Your task to perform on an android device: see creations saved in the google photos Image 0: 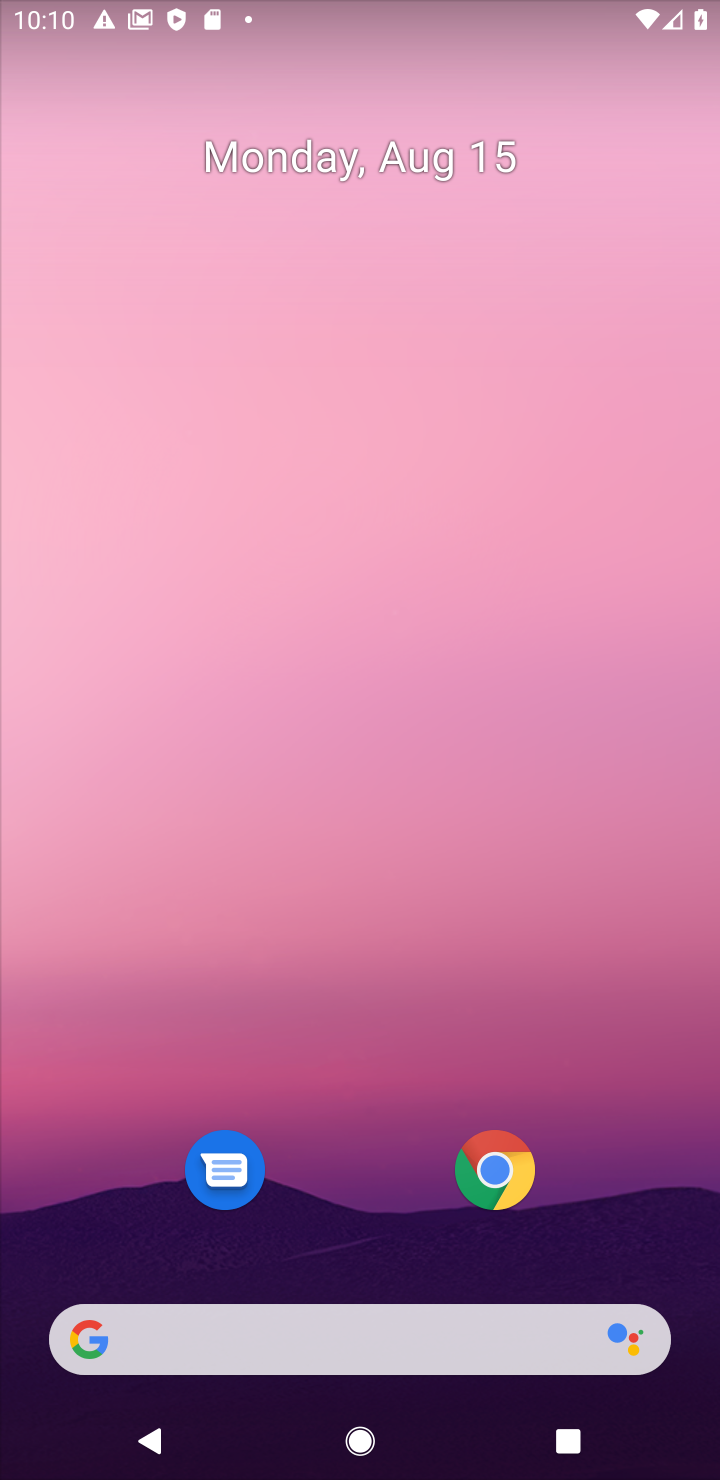
Step 0: press home button
Your task to perform on an android device: see creations saved in the google photos Image 1: 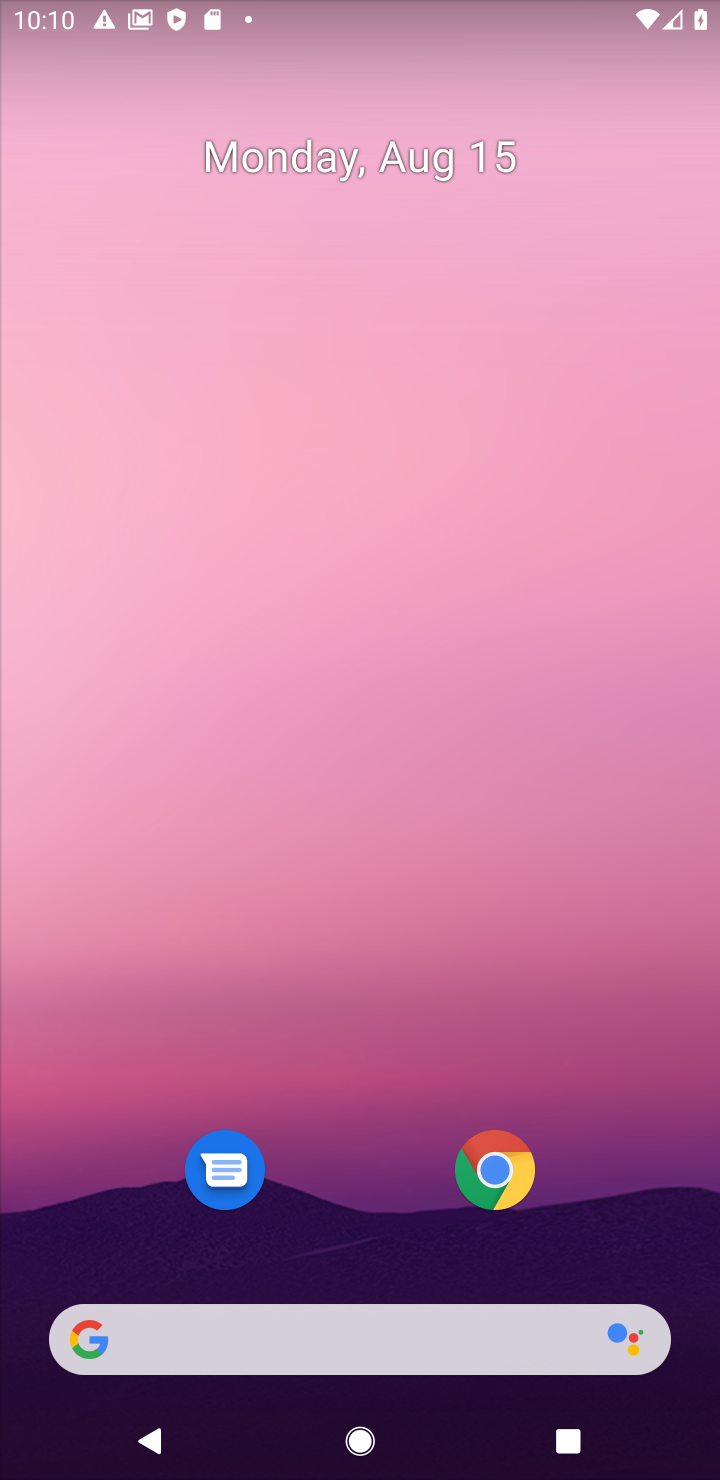
Step 1: drag from (397, 758) to (462, 13)
Your task to perform on an android device: see creations saved in the google photos Image 2: 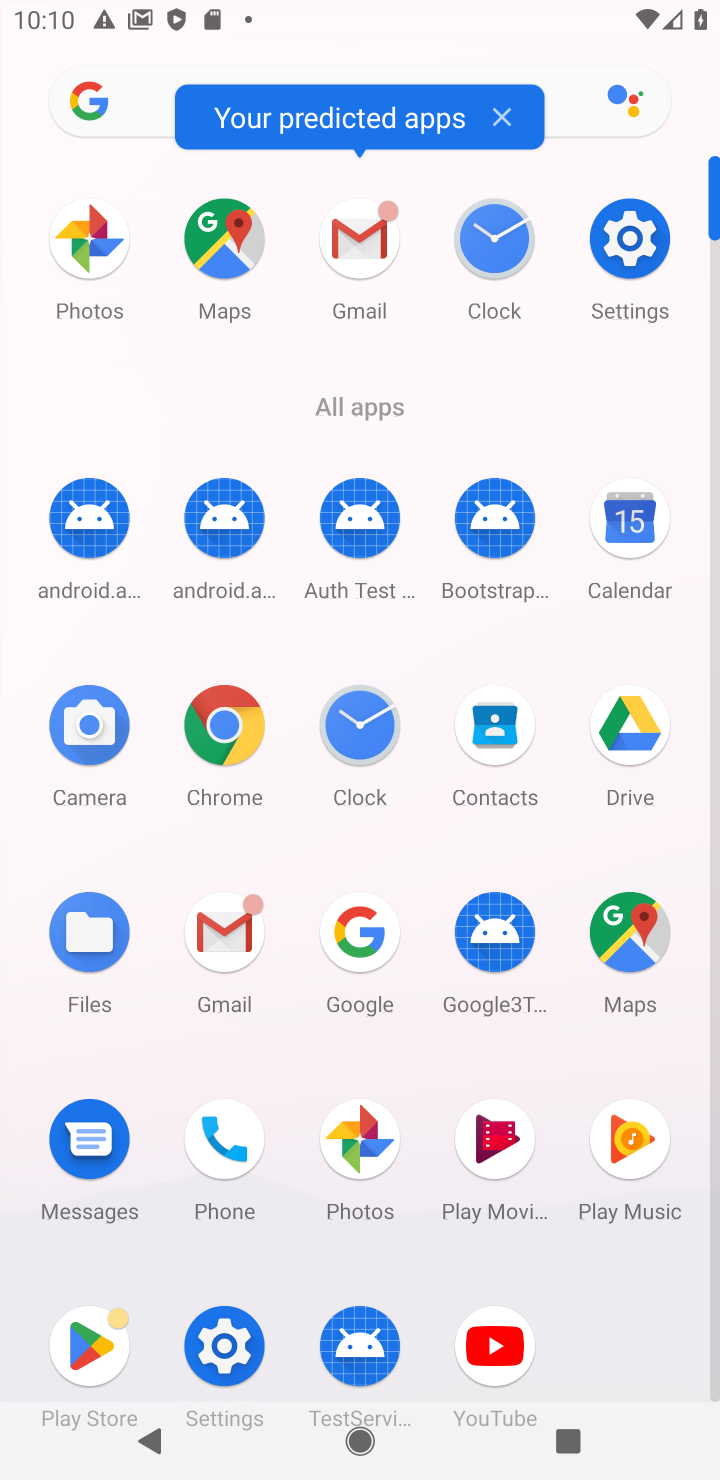
Step 2: click (356, 1126)
Your task to perform on an android device: see creations saved in the google photos Image 3: 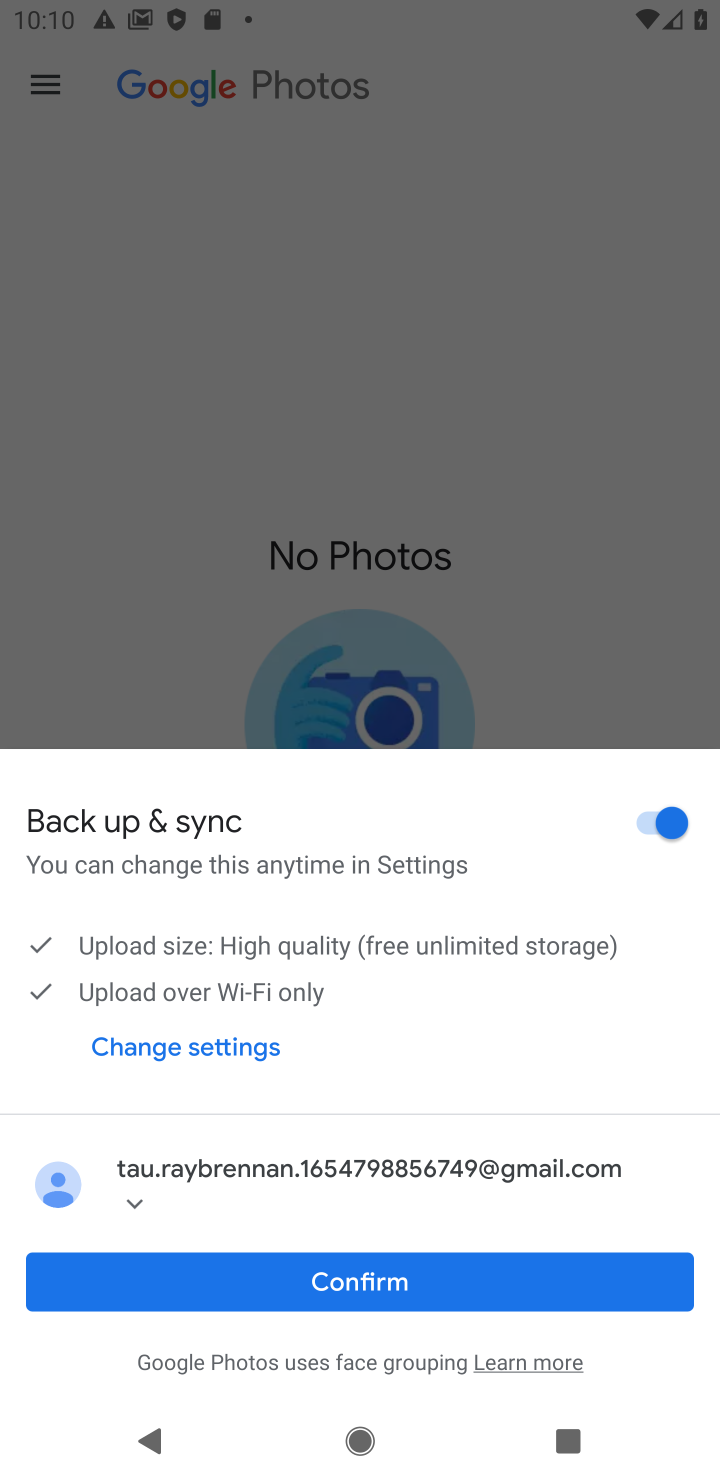
Step 3: click (344, 1284)
Your task to perform on an android device: see creations saved in the google photos Image 4: 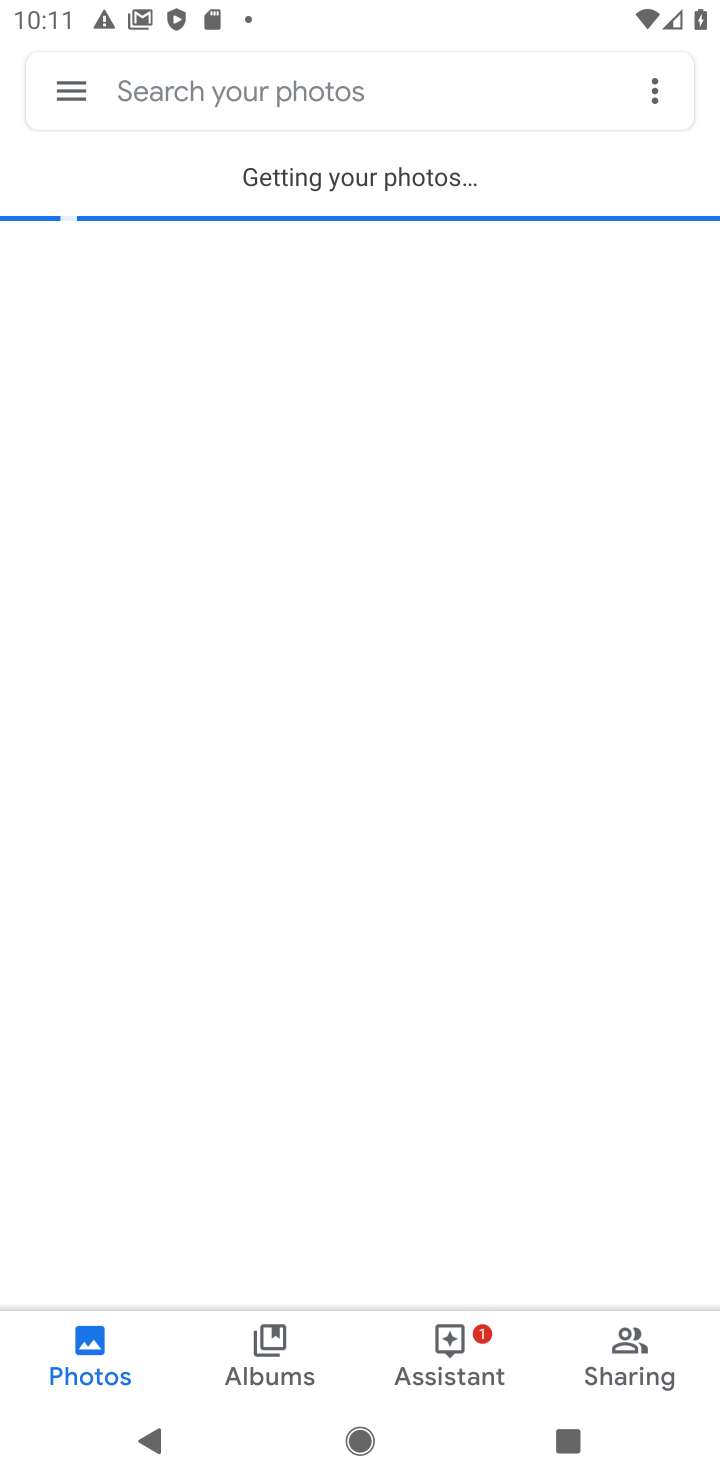
Step 4: click (254, 92)
Your task to perform on an android device: see creations saved in the google photos Image 5: 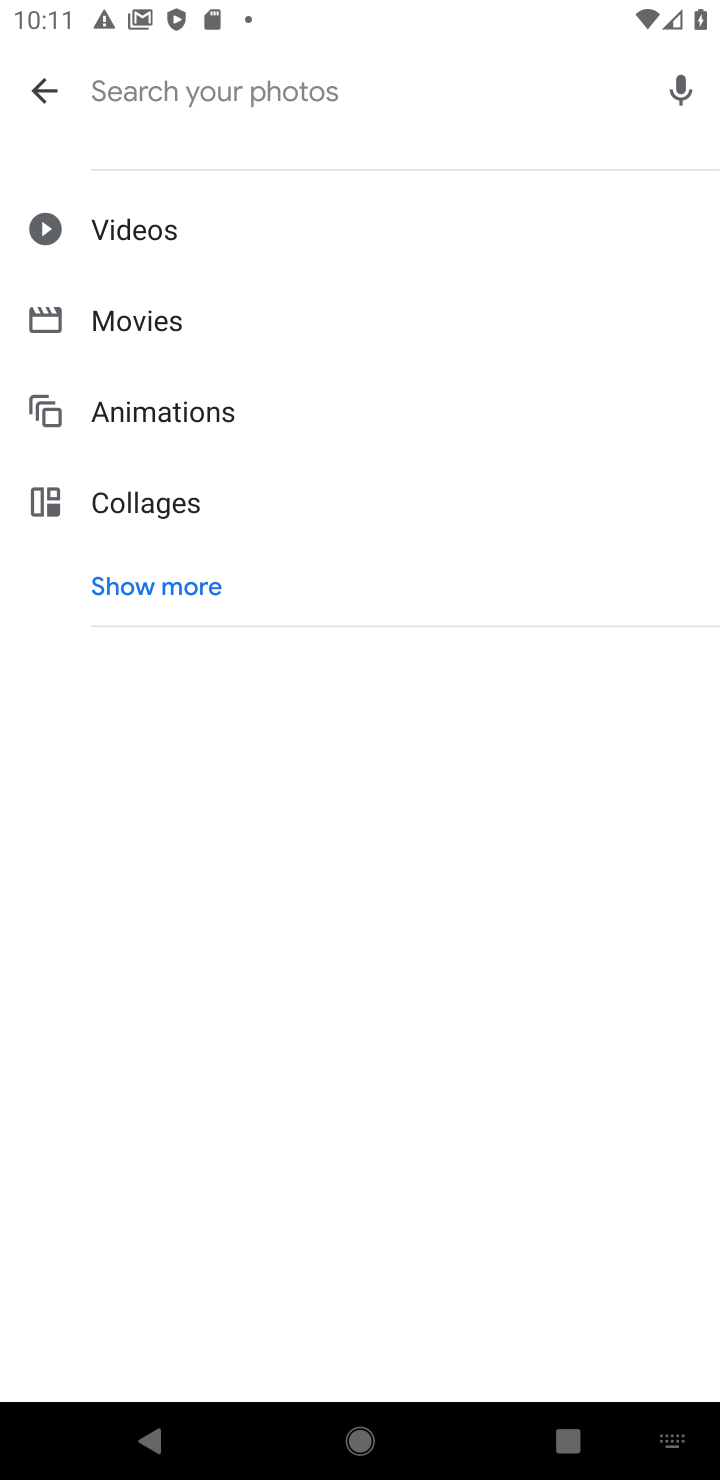
Step 5: click (159, 586)
Your task to perform on an android device: see creations saved in the google photos Image 6: 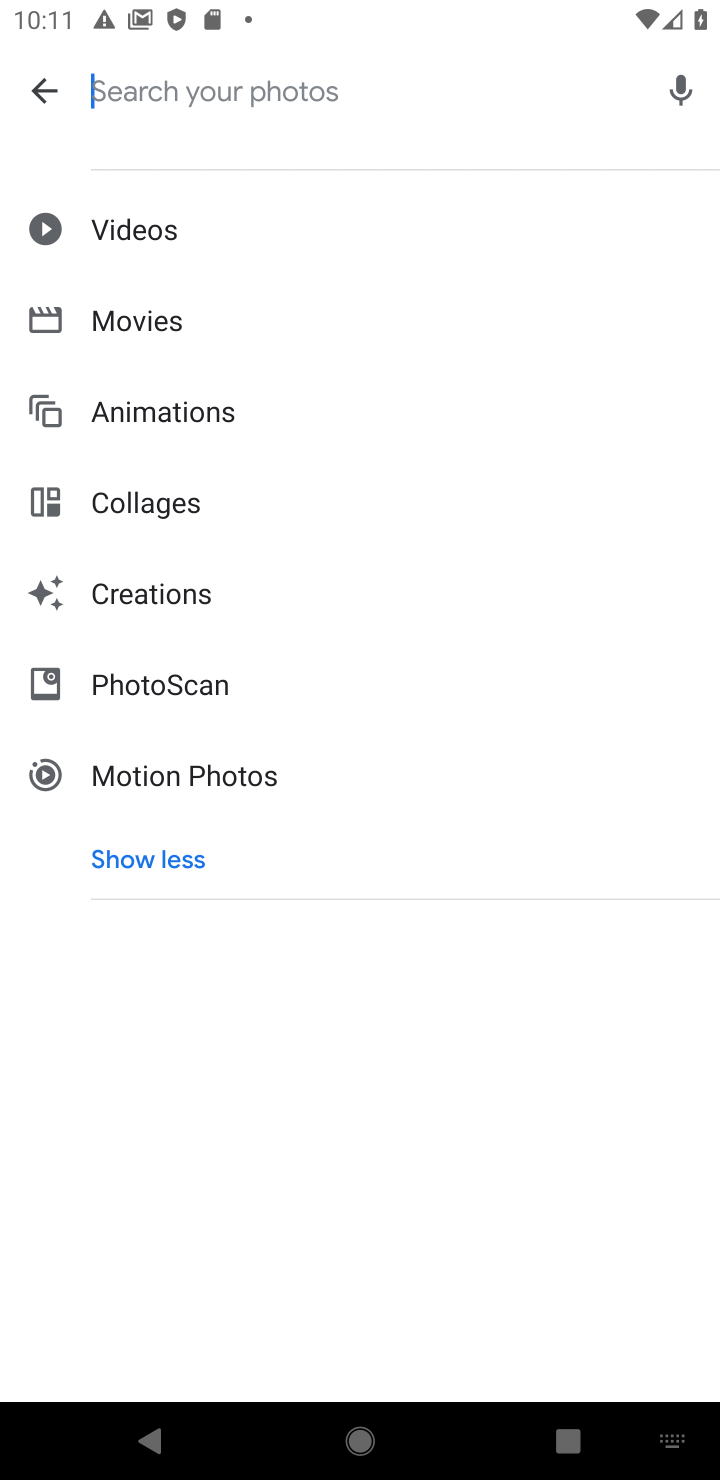
Step 6: click (141, 592)
Your task to perform on an android device: see creations saved in the google photos Image 7: 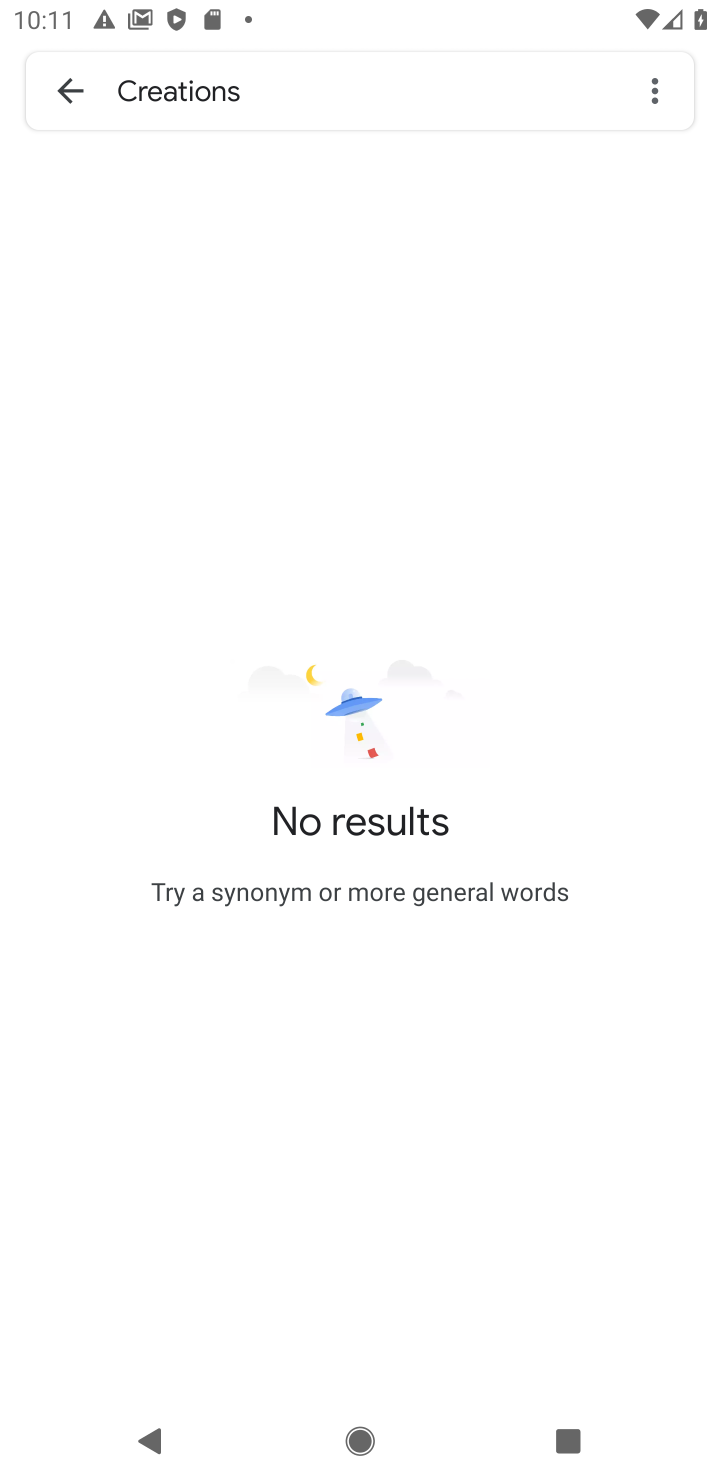
Step 7: task complete